Your task to perform on an android device: Open sound settings Image 0: 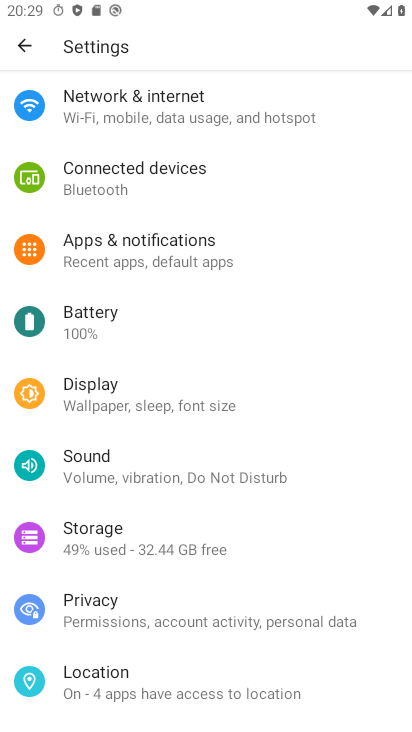
Step 0: click (103, 462)
Your task to perform on an android device: Open sound settings Image 1: 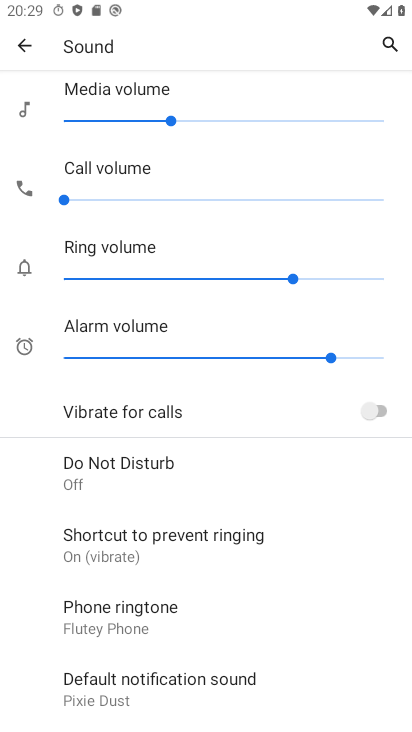
Step 1: task complete